Your task to perform on an android device: Open calendar and show me the fourth week of next month Image 0: 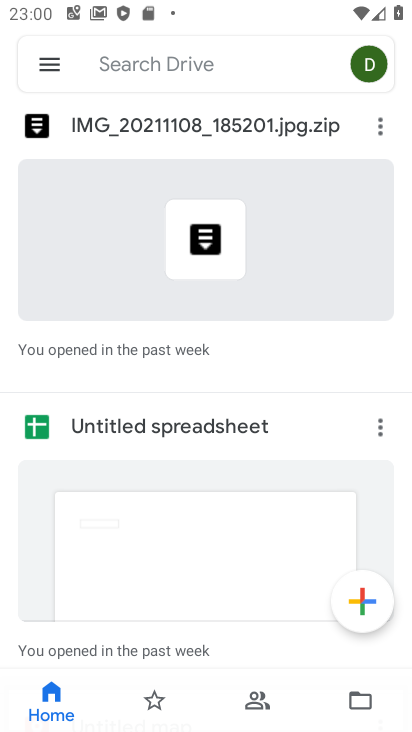
Step 0: press home button
Your task to perform on an android device: Open calendar and show me the fourth week of next month Image 1: 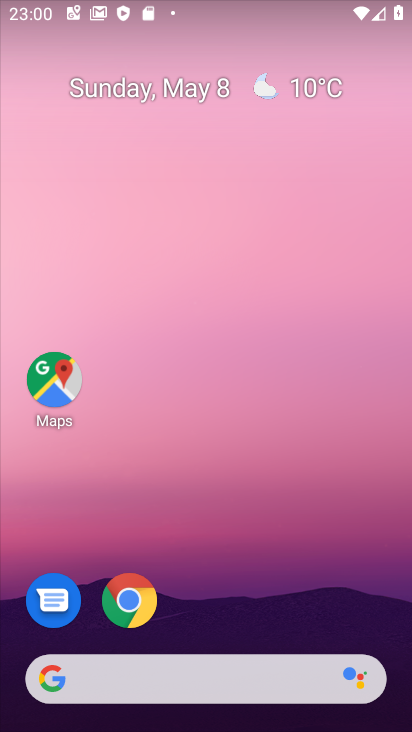
Step 1: click (205, 87)
Your task to perform on an android device: Open calendar and show me the fourth week of next month Image 2: 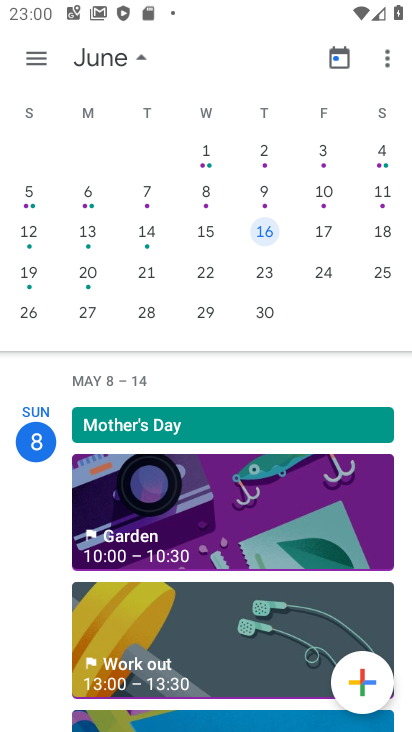
Step 2: click (263, 265)
Your task to perform on an android device: Open calendar and show me the fourth week of next month Image 3: 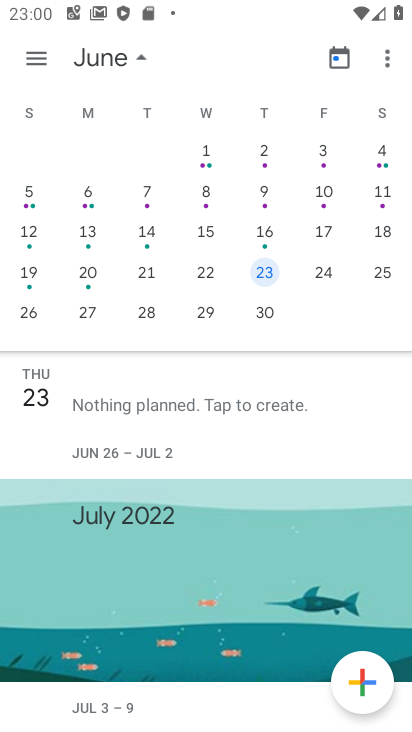
Step 3: task complete